Your task to perform on an android device: Open calendar and show me the first week of next month Image 0: 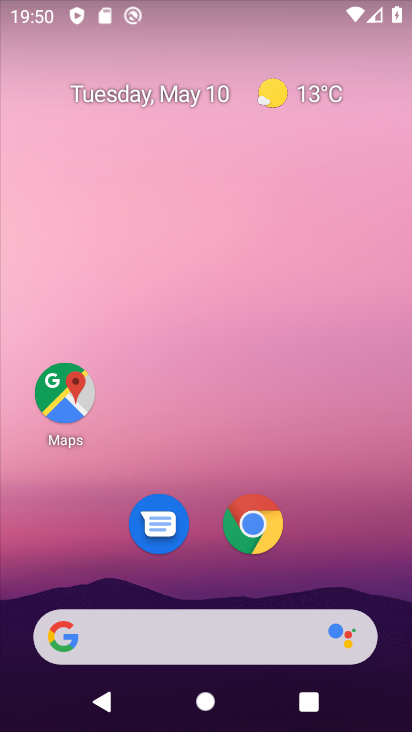
Step 0: drag from (357, 552) to (367, 54)
Your task to perform on an android device: Open calendar and show me the first week of next month Image 1: 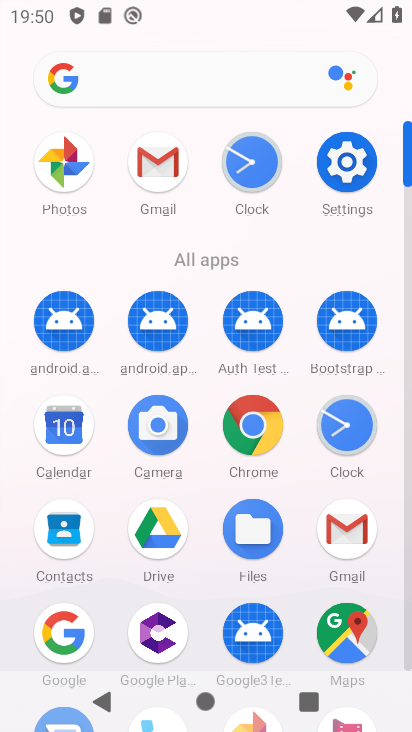
Step 1: click (61, 428)
Your task to perform on an android device: Open calendar and show me the first week of next month Image 2: 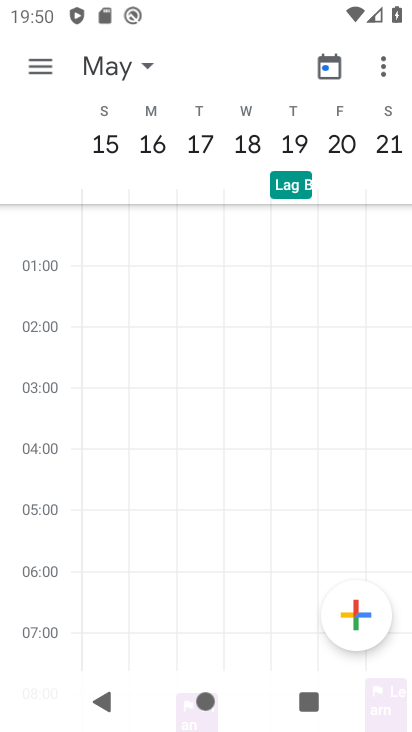
Step 2: task complete